Your task to perform on an android device: Open Google Chrome and click the shortcut for Amazon.com Image 0: 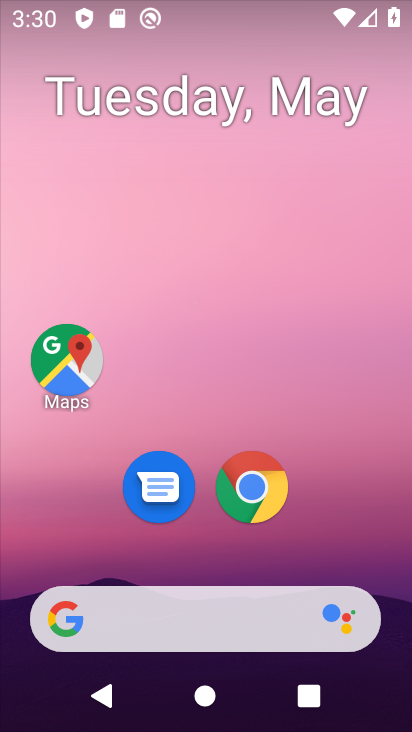
Step 0: click (279, 496)
Your task to perform on an android device: Open Google Chrome and click the shortcut for Amazon.com Image 1: 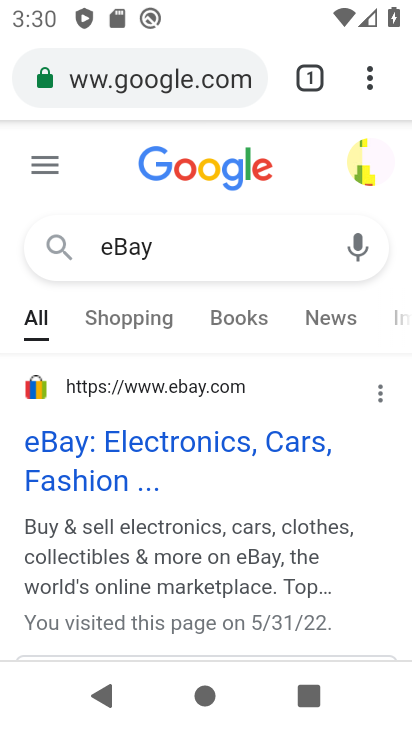
Step 1: click (369, 71)
Your task to perform on an android device: Open Google Chrome and click the shortcut for Amazon.com Image 2: 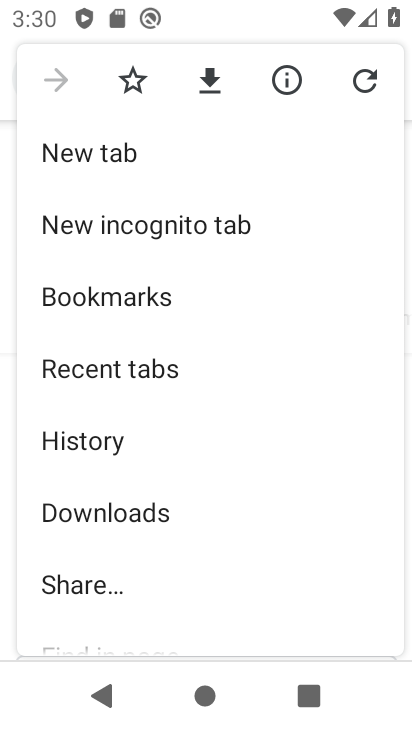
Step 2: click (122, 156)
Your task to perform on an android device: Open Google Chrome and click the shortcut for Amazon.com Image 3: 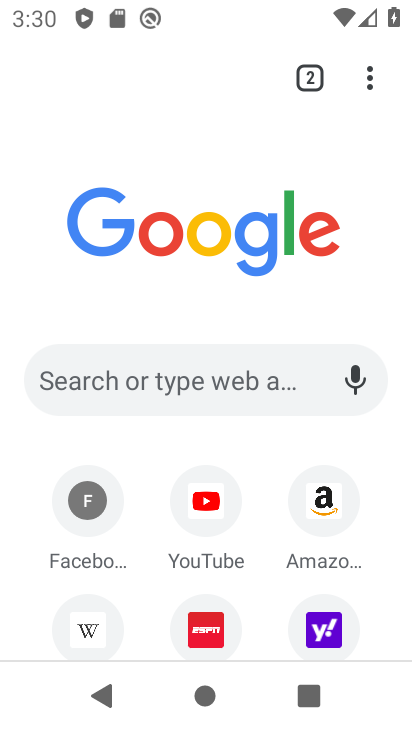
Step 3: click (327, 507)
Your task to perform on an android device: Open Google Chrome and click the shortcut for Amazon.com Image 4: 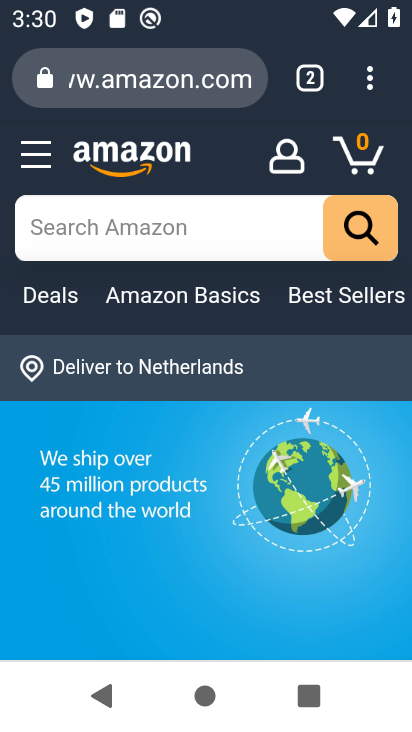
Step 4: task complete